Your task to perform on an android device: Open sound settings Image 0: 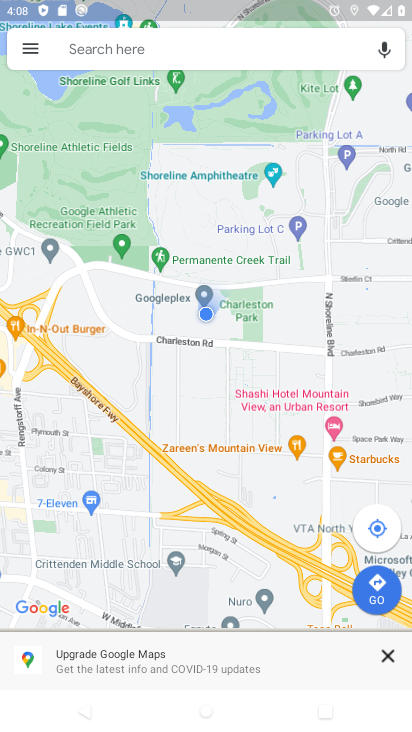
Step 0: press home button
Your task to perform on an android device: Open sound settings Image 1: 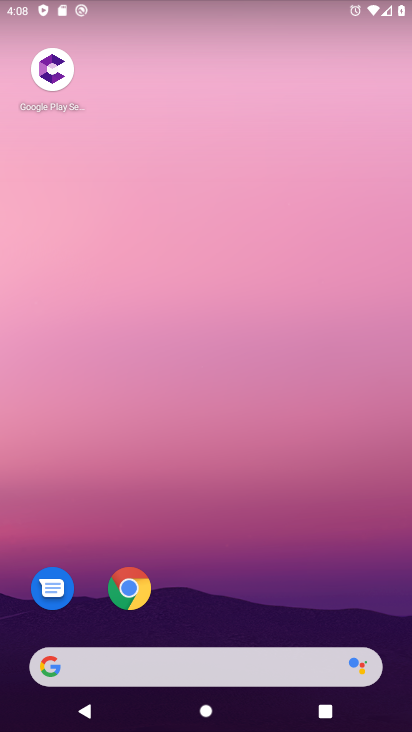
Step 1: drag from (173, 662) to (234, 234)
Your task to perform on an android device: Open sound settings Image 2: 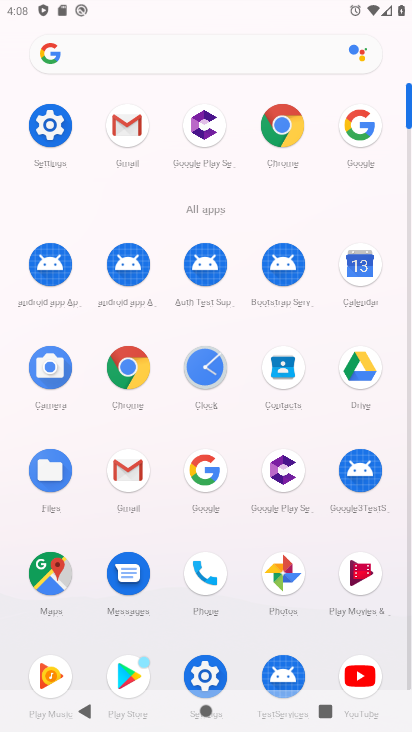
Step 2: click (51, 129)
Your task to perform on an android device: Open sound settings Image 3: 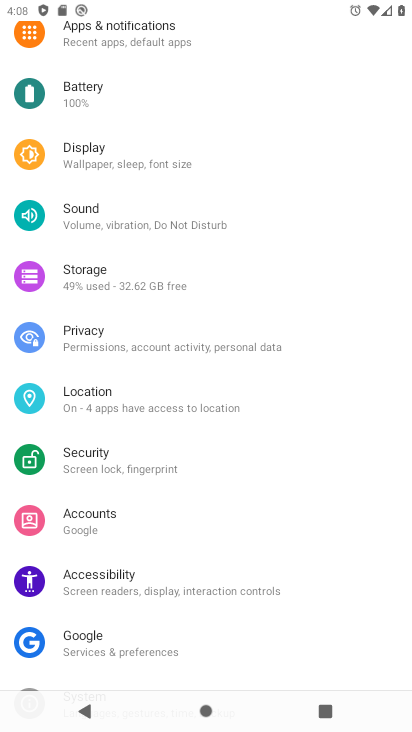
Step 3: click (87, 217)
Your task to perform on an android device: Open sound settings Image 4: 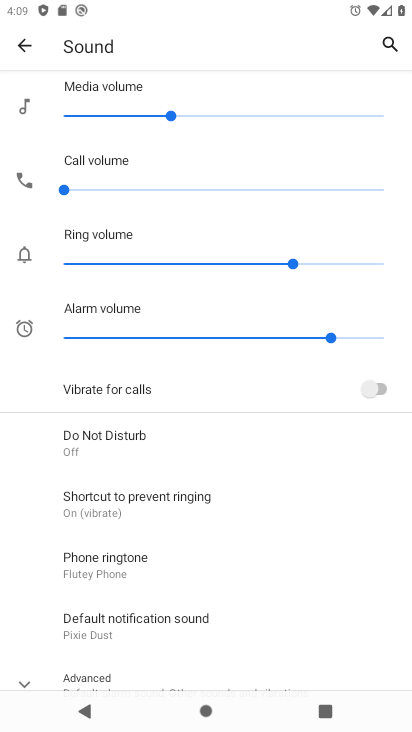
Step 4: task complete